Your task to perform on an android device: open app "Google Translate" (install if not already installed) Image 0: 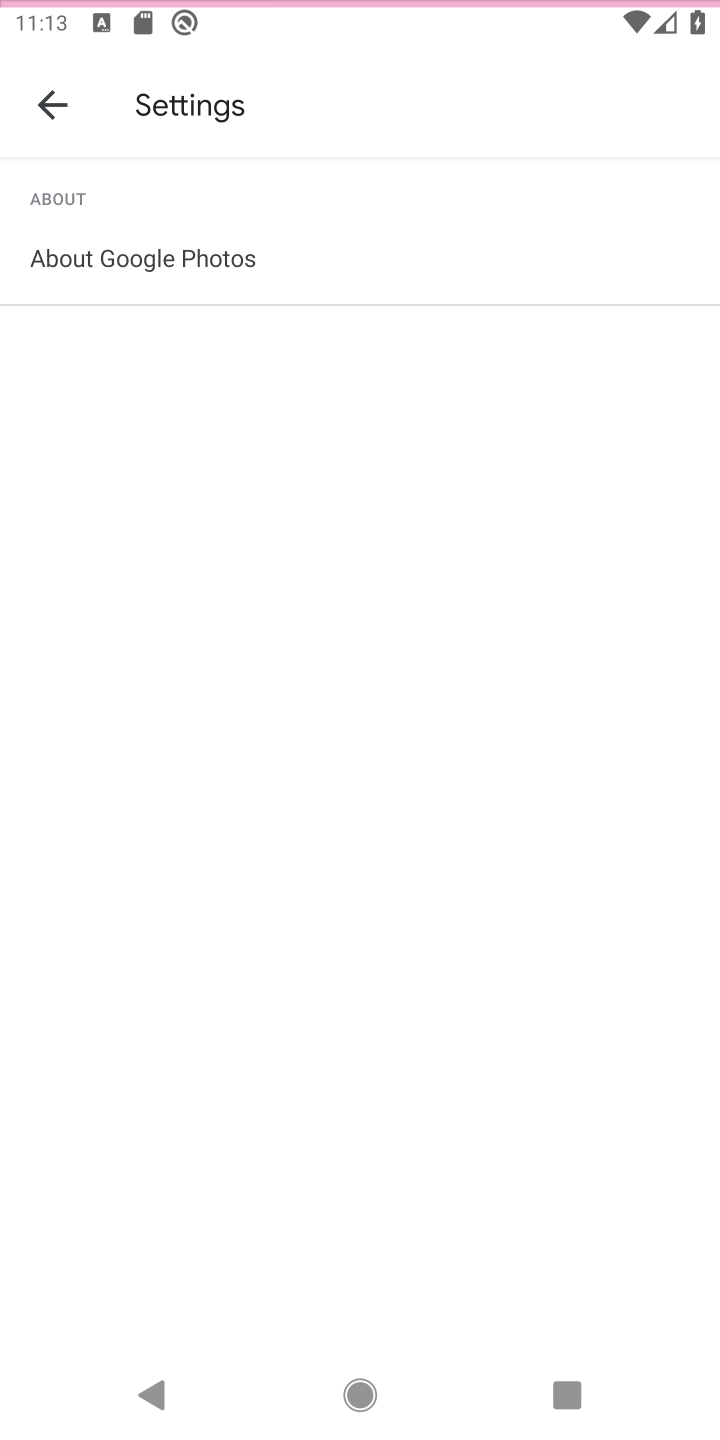
Step 0: press home button
Your task to perform on an android device: open app "Google Translate" (install if not already installed) Image 1: 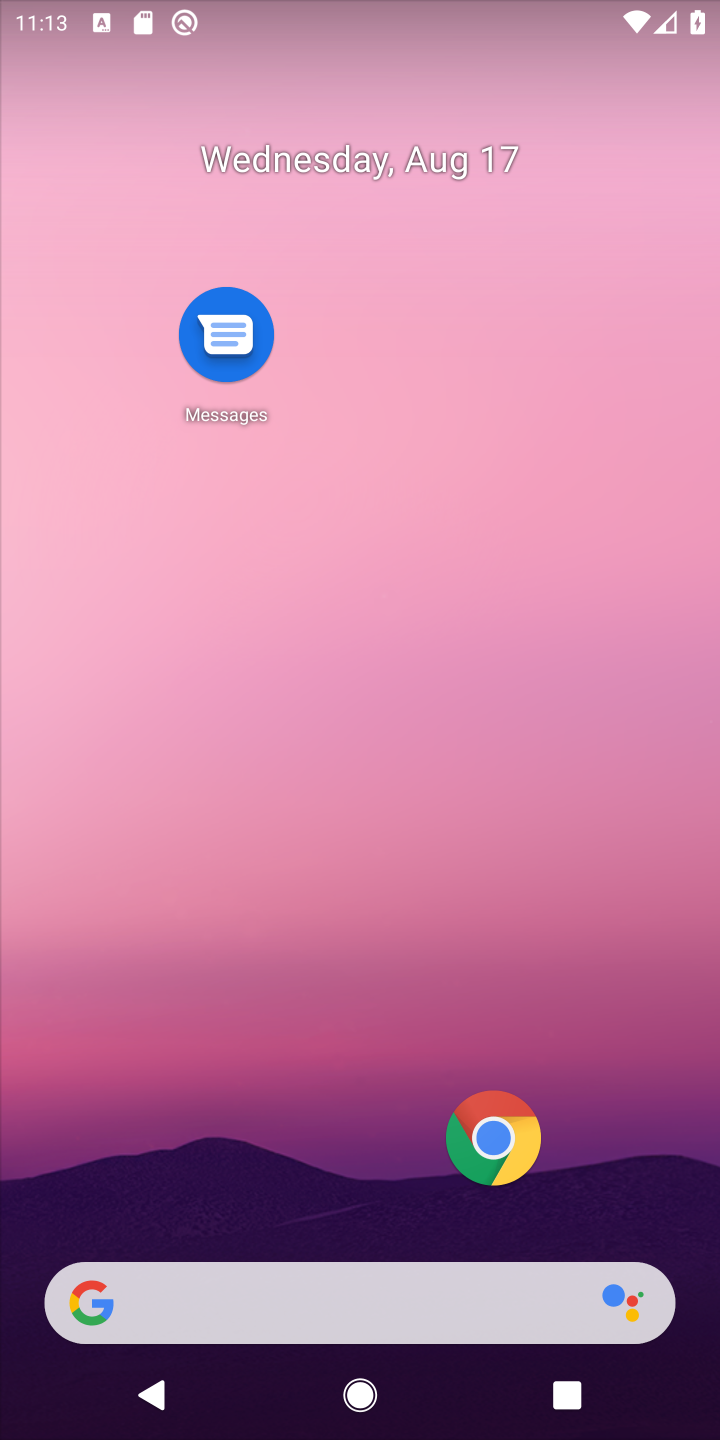
Step 1: press home button
Your task to perform on an android device: open app "Google Translate" (install if not already installed) Image 2: 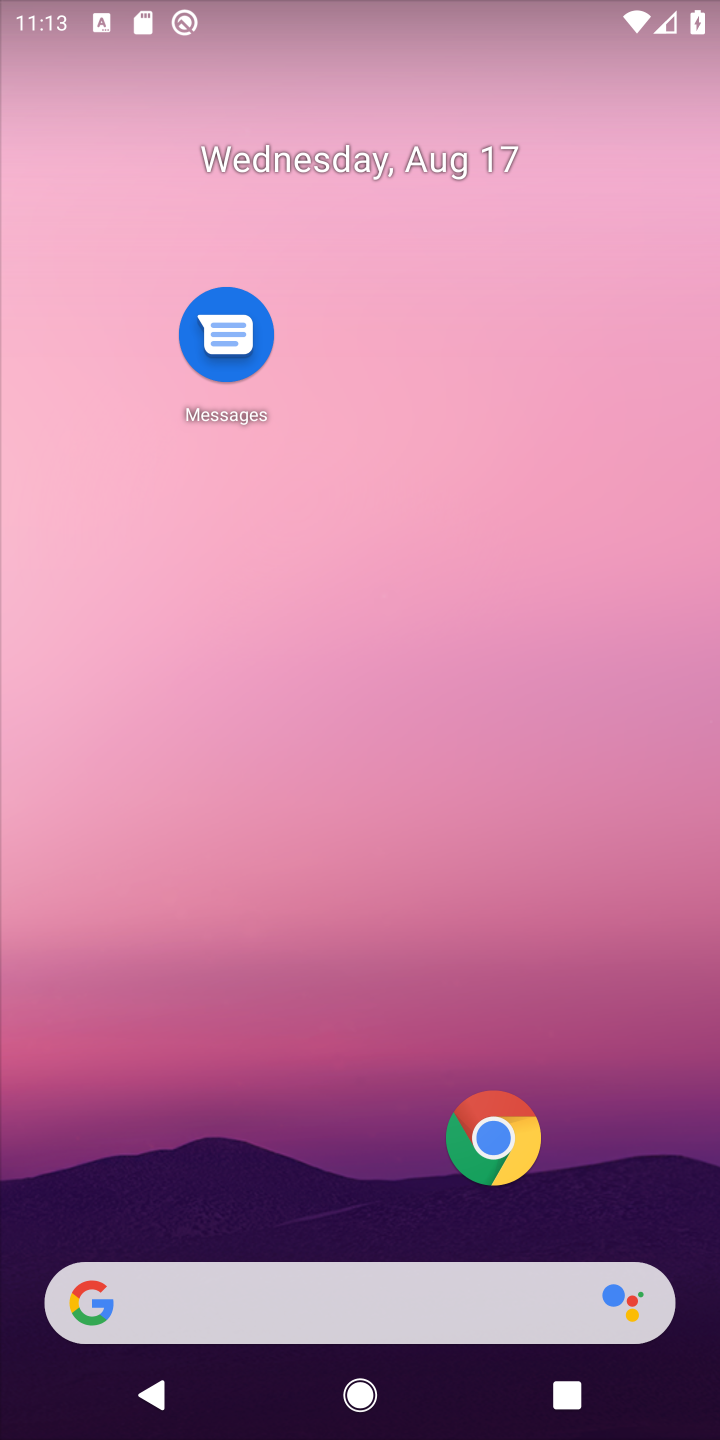
Step 2: drag from (352, 1263) to (361, 363)
Your task to perform on an android device: open app "Google Translate" (install if not already installed) Image 3: 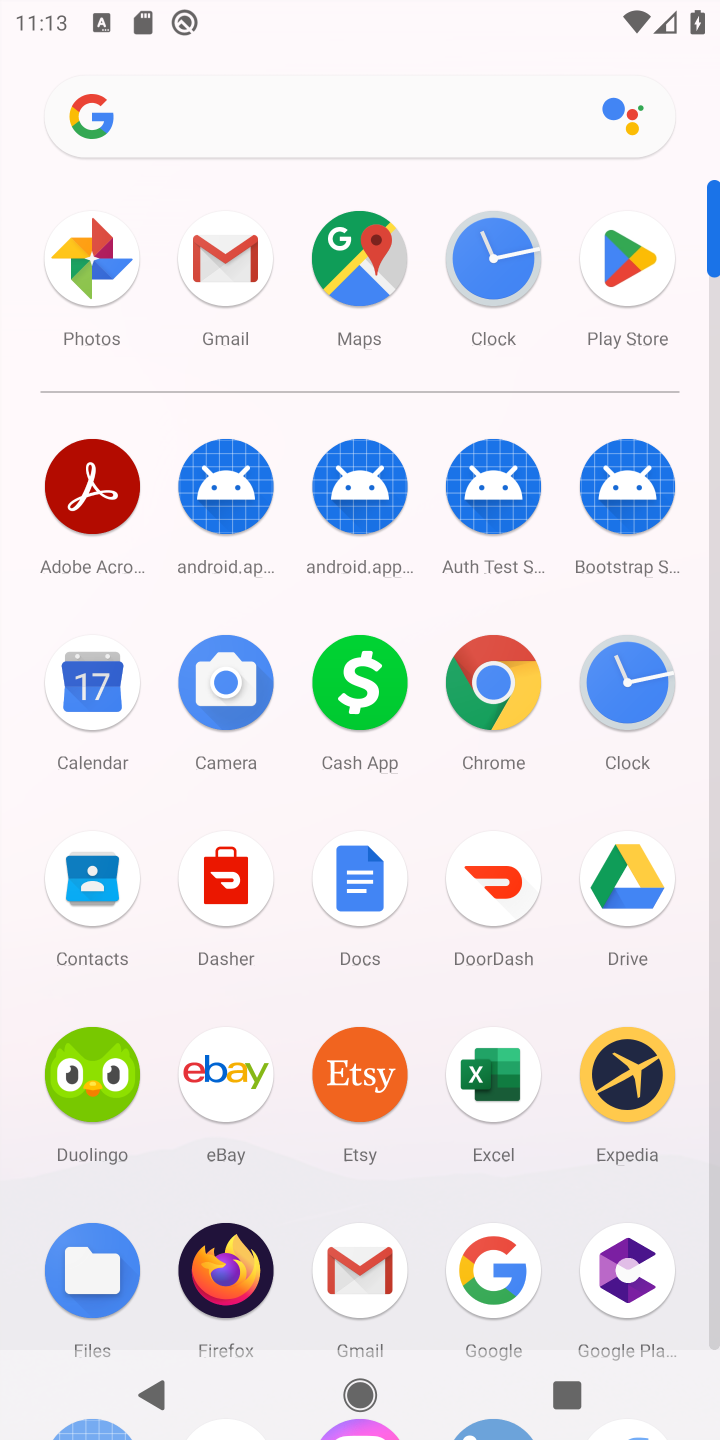
Step 3: click (605, 329)
Your task to perform on an android device: open app "Google Translate" (install if not already installed) Image 4: 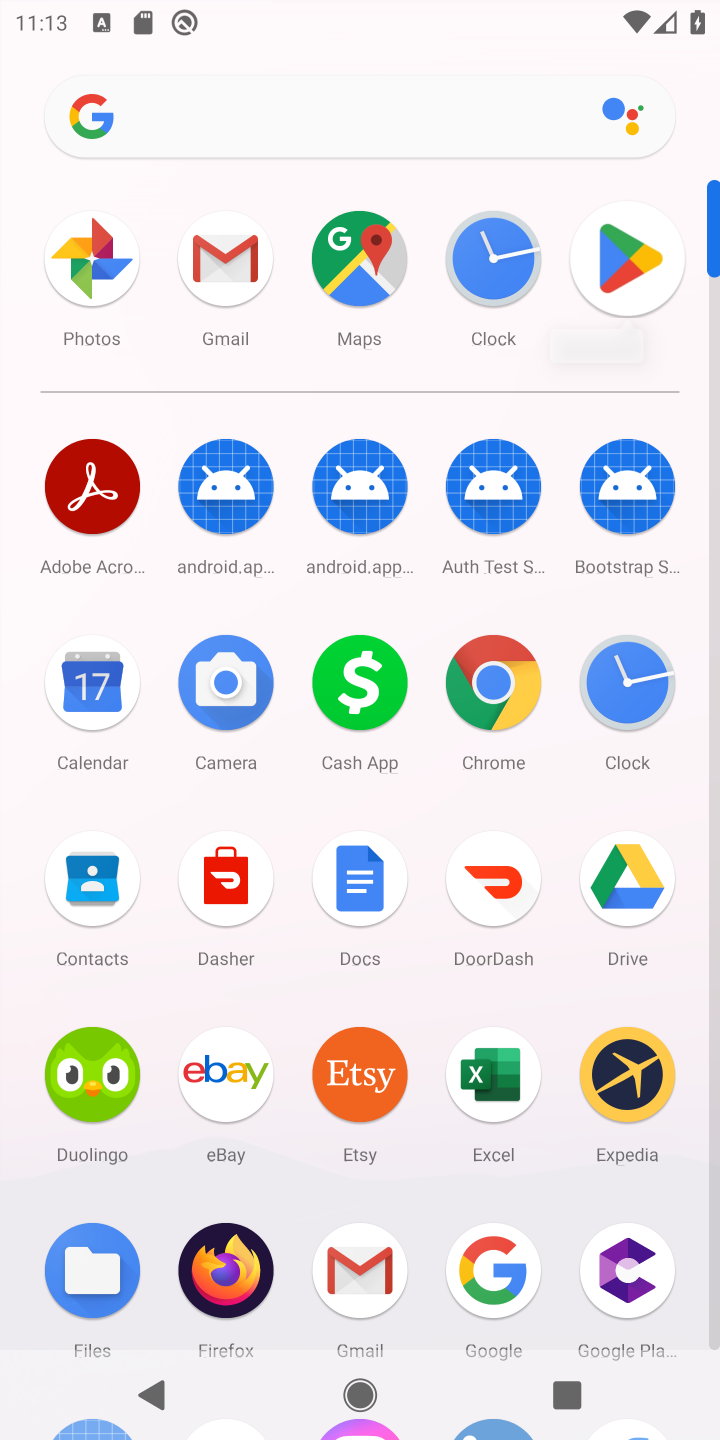
Step 4: click (624, 264)
Your task to perform on an android device: open app "Google Translate" (install if not already installed) Image 5: 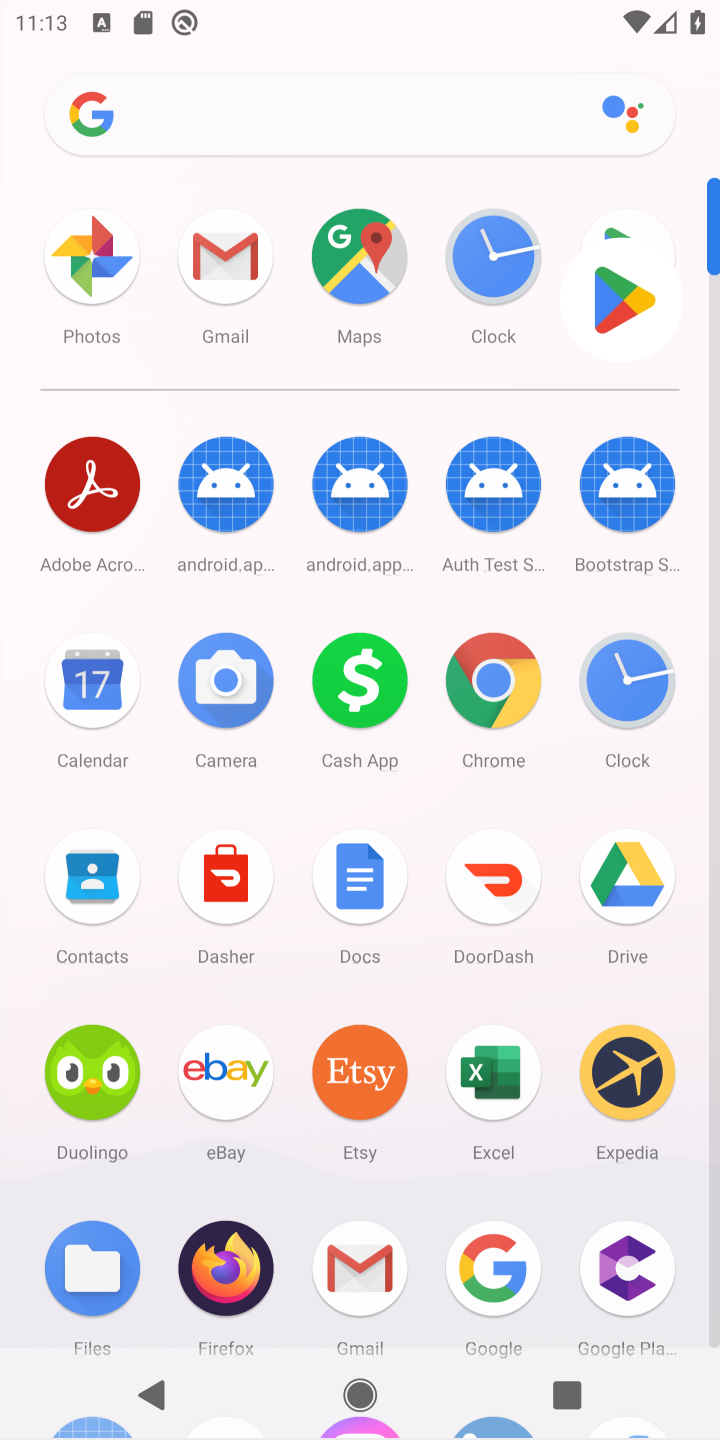
Step 5: click (628, 282)
Your task to perform on an android device: open app "Google Translate" (install if not already installed) Image 6: 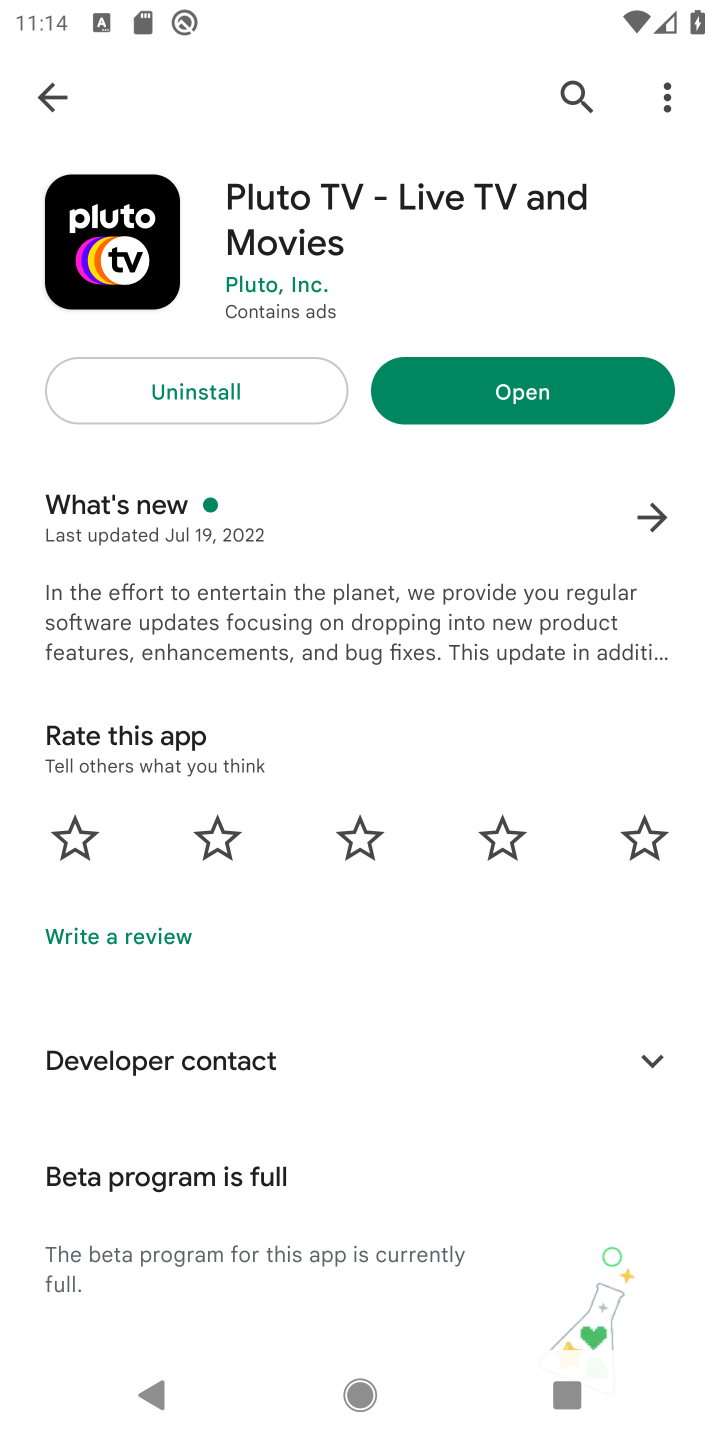
Step 6: click (35, 98)
Your task to perform on an android device: open app "Google Translate" (install if not already installed) Image 7: 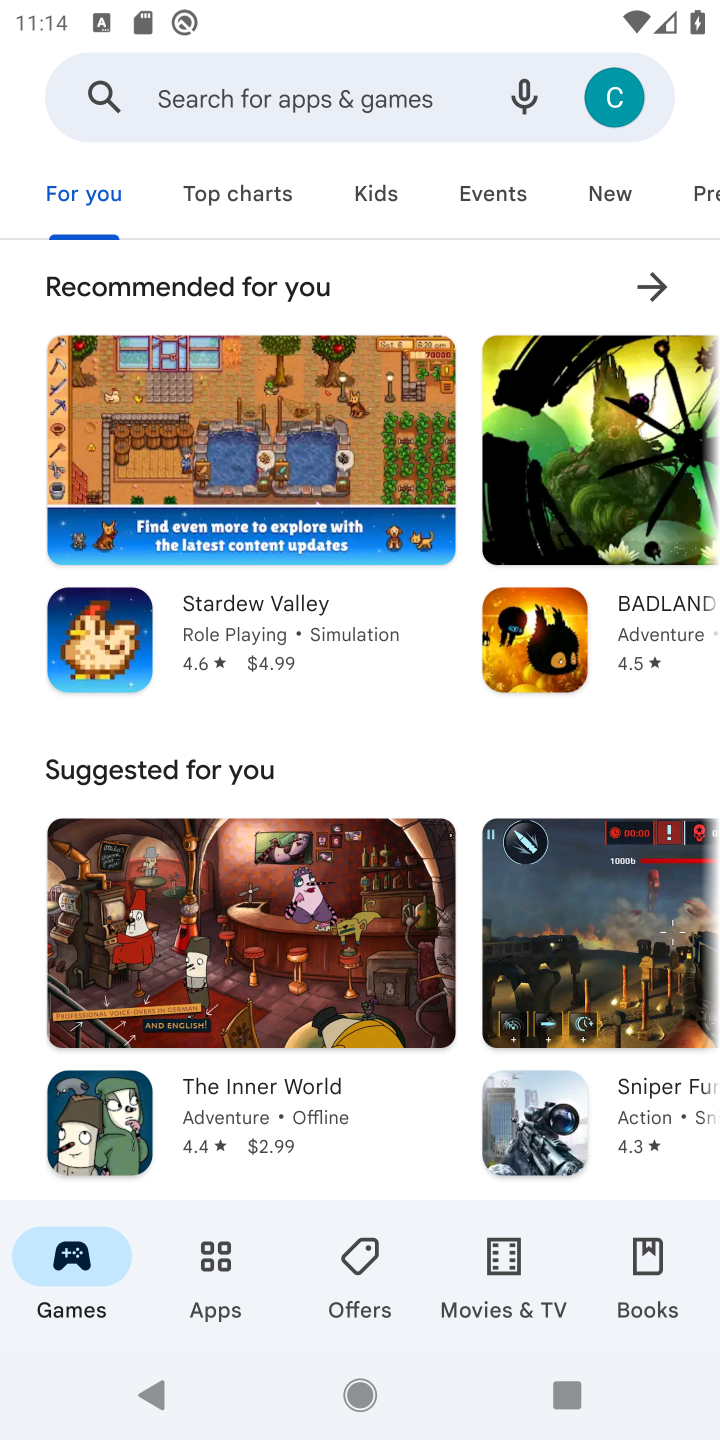
Step 7: click (250, 97)
Your task to perform on an android device: open app "Google Translate" (install if not already installed) Image 8: 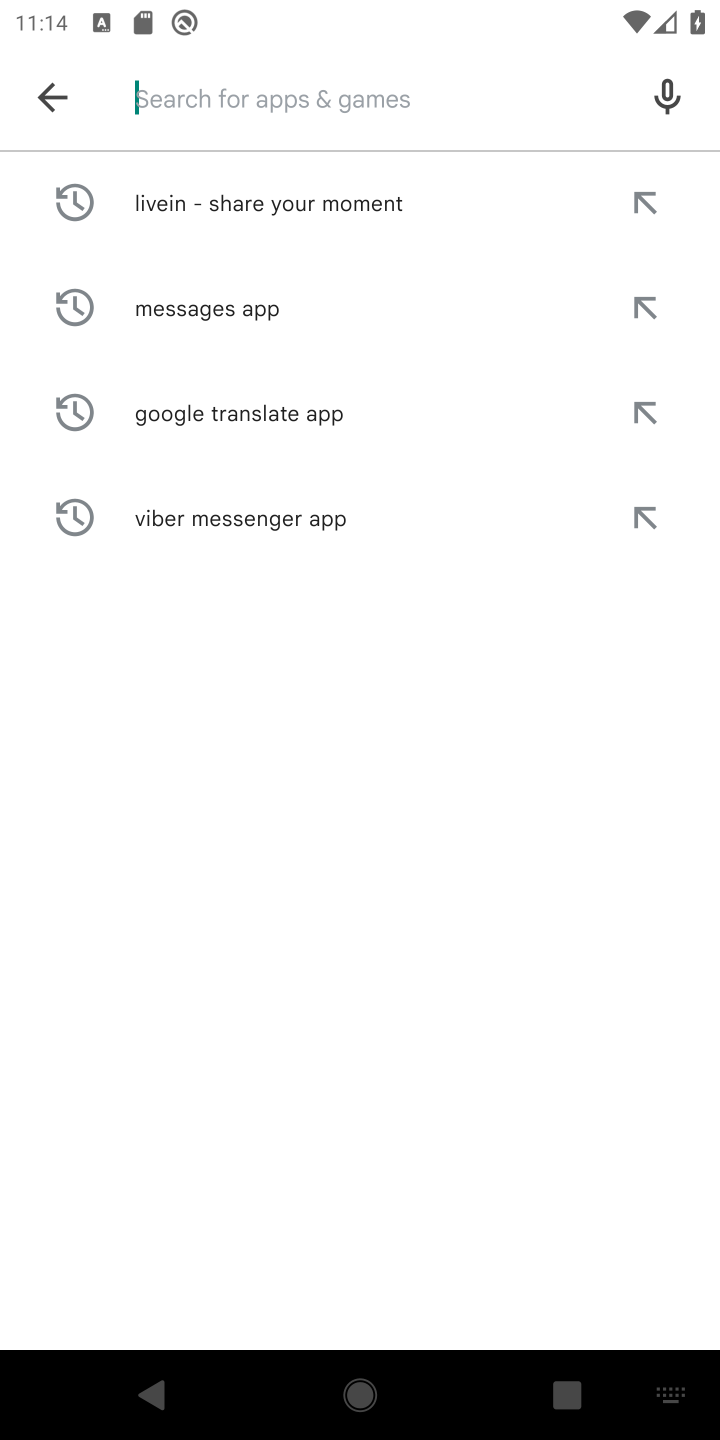
Step 8: type "Google Translate "
Your task to perform on an android device: open app "Google Translate" (install if not already installed) Image 9: 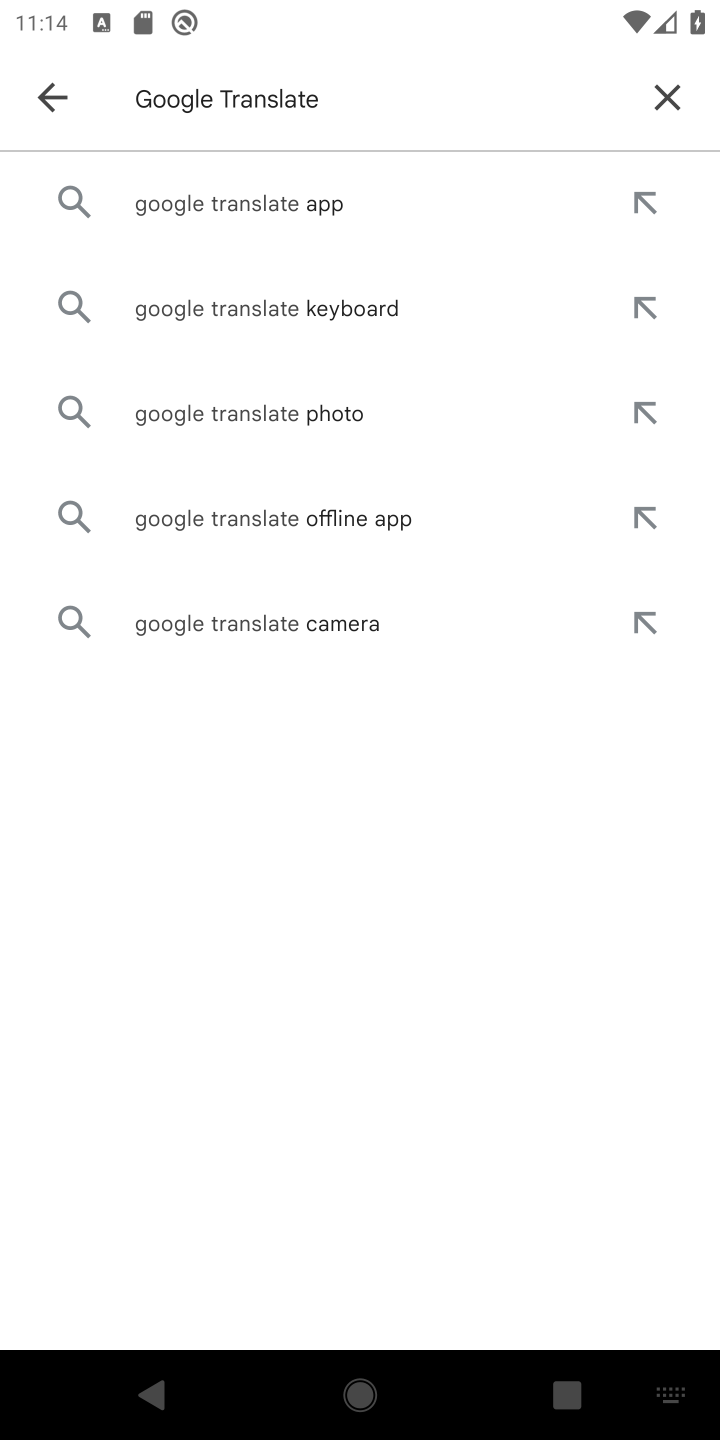
Step 9: click (244, 174)
Your task to perform on an android device: open app "Google Translate" (install if not already installed) Image 10: 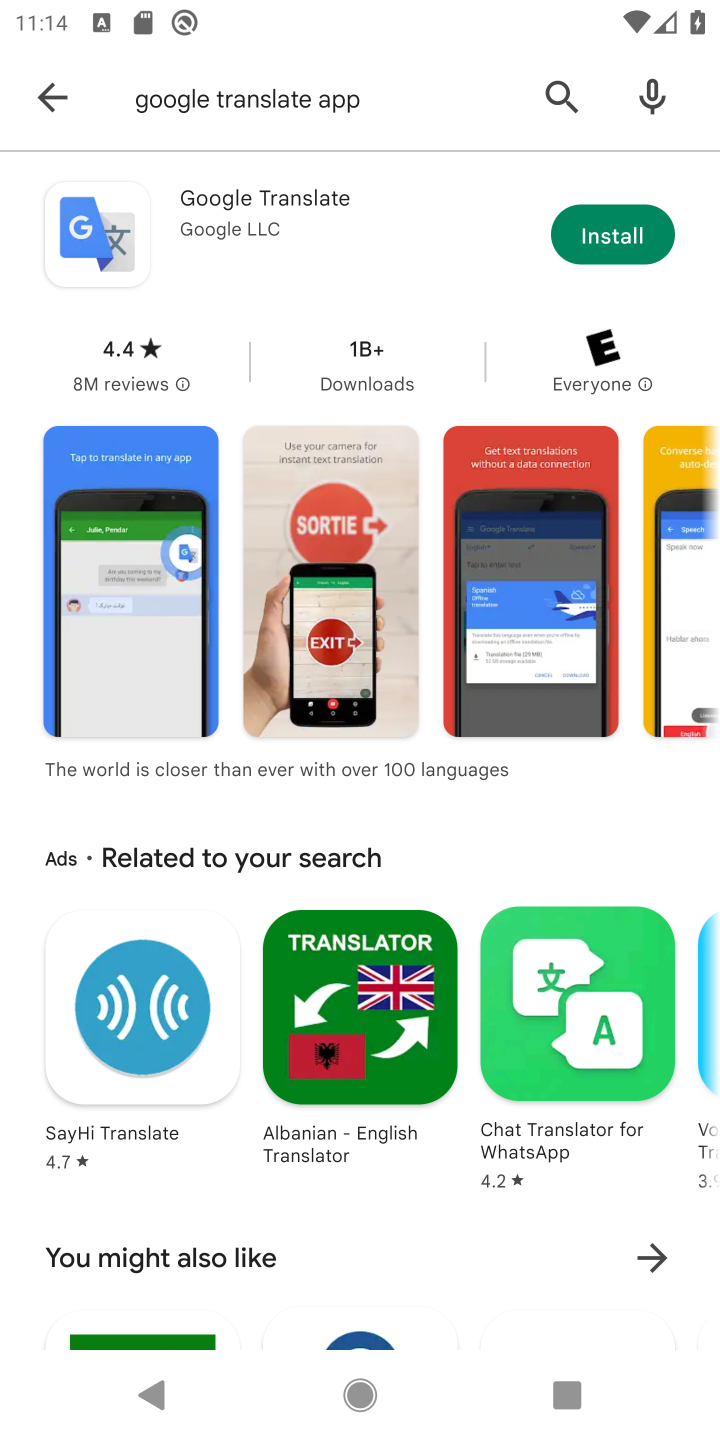
Step 10: click (646, 225)
Your task to perform on an android device: open app "Google Translate" (install if not already installed) Image 11: 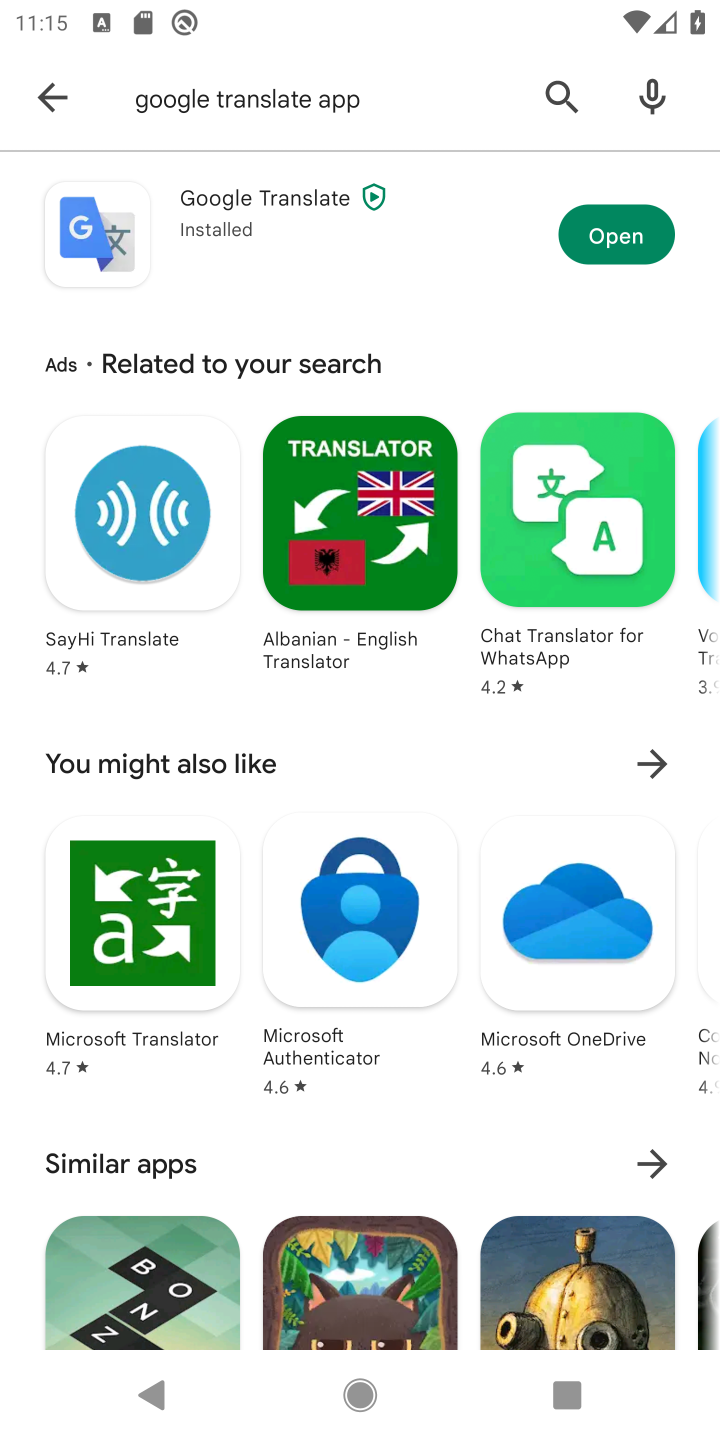
Step 11: click (618, 229)
Your task to perform on an android device: open app "Google Translate" (install if not already installed) Image 12: 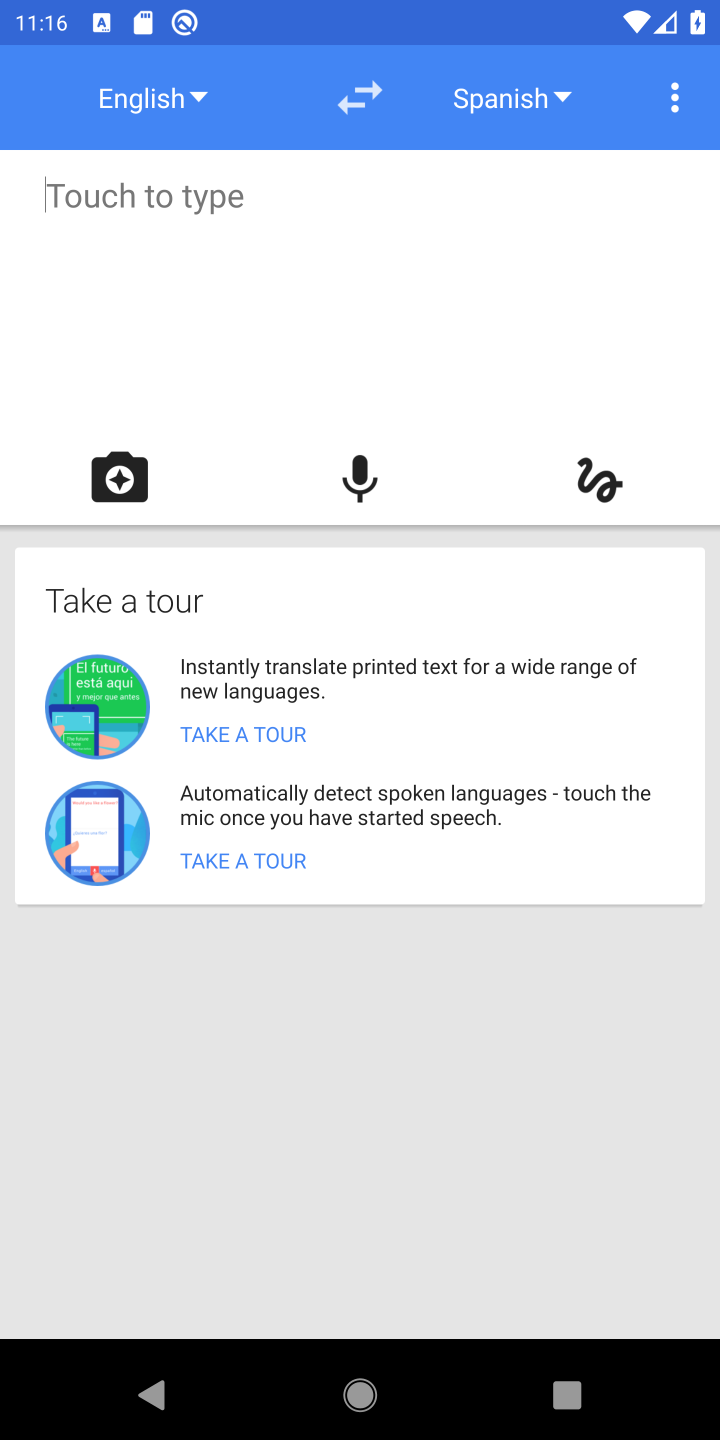
Step 12: task complete